Your task to perform on an android device: Open Google Maps Image 0: 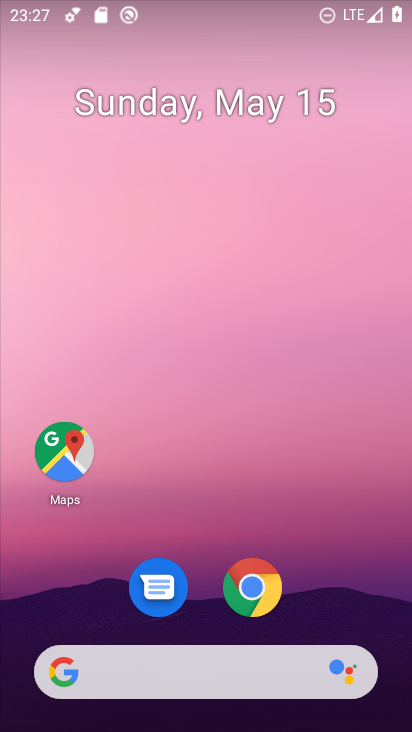
Step 0: click (70, 456)
Your task to perform on an android device: Open Google Maps Image 1: 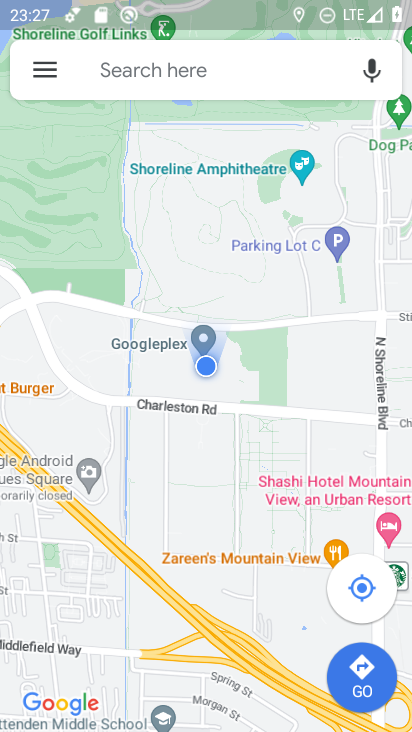
Step 1: task complete